Your task to perform on an android device: turn on javascript in the chrome app Image 0: 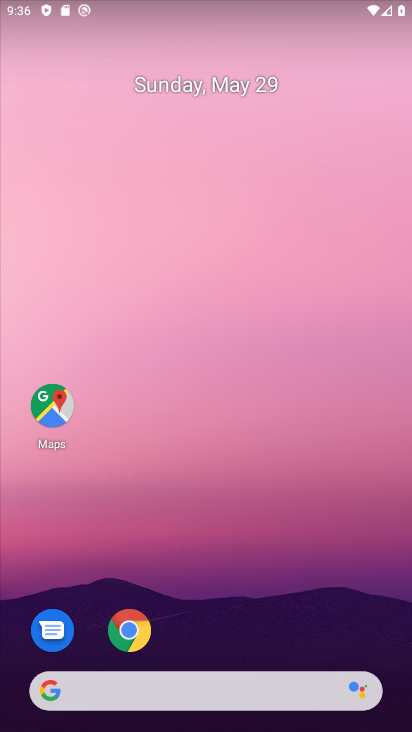
Step 0: click (139, 633)
Your task to perform on an android device: turn on javascript in the chrome app Image 1: 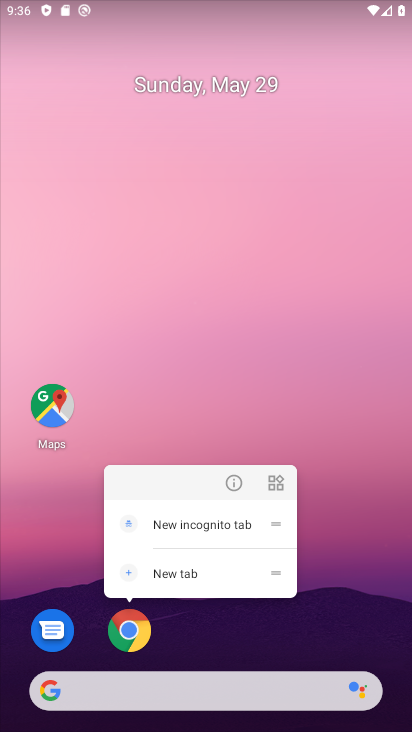
Step 1: click (131, 638)
Your task to perform on an android device: turn on javascript in the chrome app Image 2: 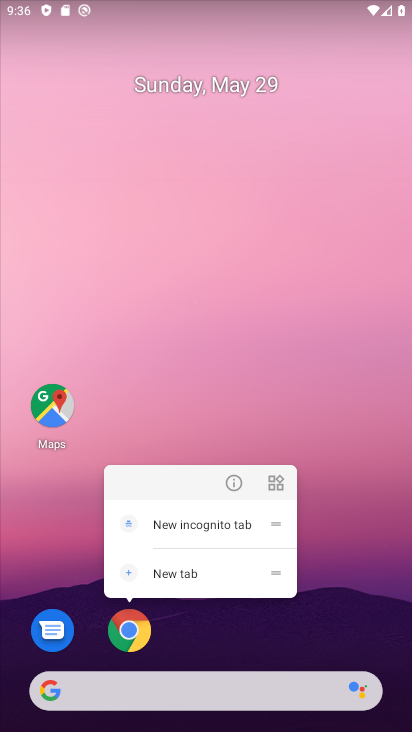
Step 2: click (137, 631)
Your task to perform on an android device: turn on javascript in the chrome app Image 3: 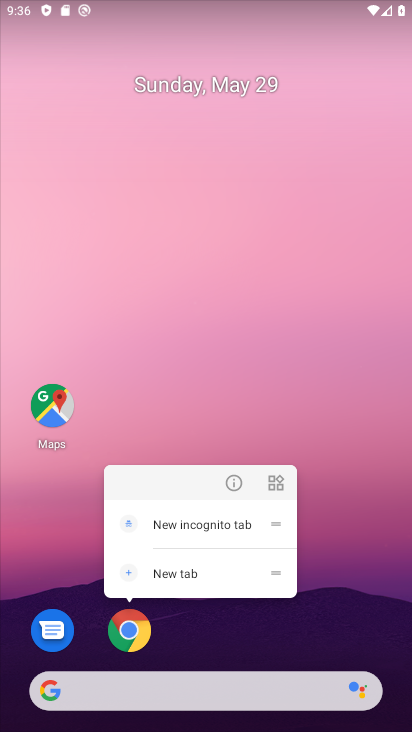
Step 3: click (127, 634)
Your task to perform on an android device: turn on javascript in the chrome app Image 4: 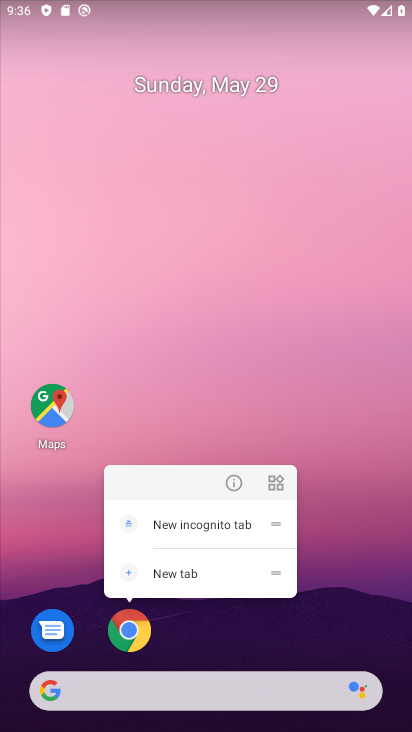
Step 4: click (123, 639)
Your task to perform on an android device: turn on javascript in the chrome app Image 5: 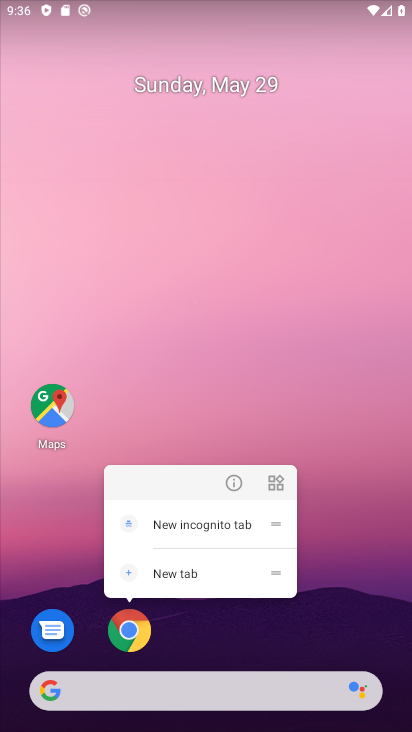
Step 5: click (128, 633)
Your task to perform on an android device: turn on javascript in the chrome app Image 6: 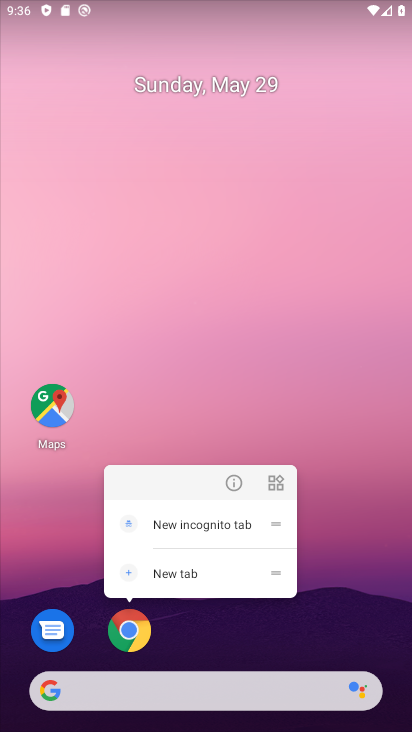
Step 6: click (120, 633)
Your task to perform on an android device: turn on javascript in the chrome app Image 7: 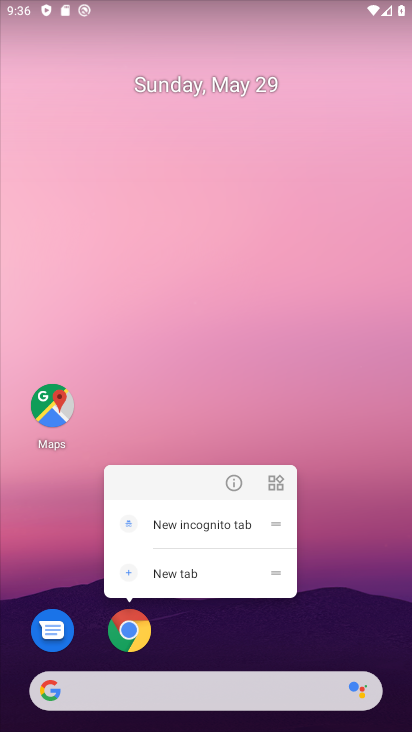
Step 7: click (126, 629)
Your task to perform on an android device: turn on javascript in the chrome app Image 8: 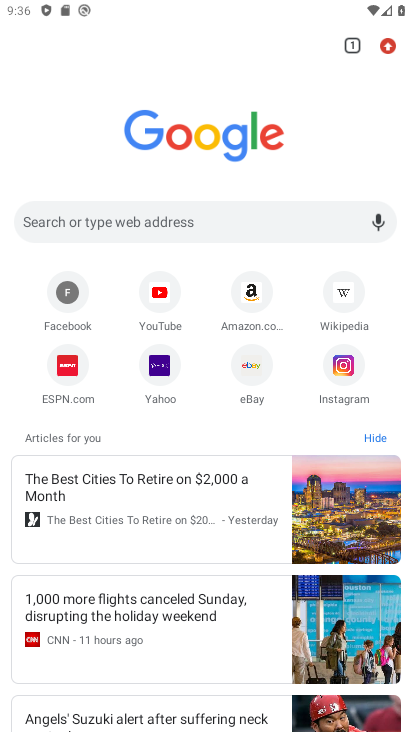
Step 8: drag from (389, 48) to (272, 429)
Your task to perform on an android device: turn on javascript in the chrome app Image 9: 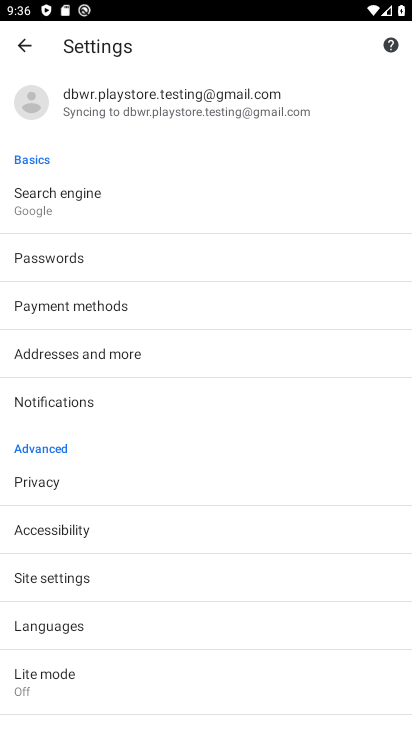
Step 9: click (139, 582)
Your task to perform on an android device: turn on javascript in the chrome app Image 10: 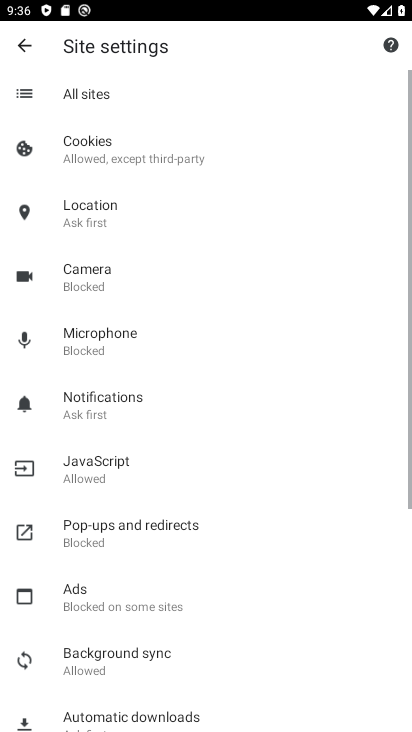
Step 10: click (213, 455)
Your task to perform on an android device: turn on javascript in the chrome app Image 11: 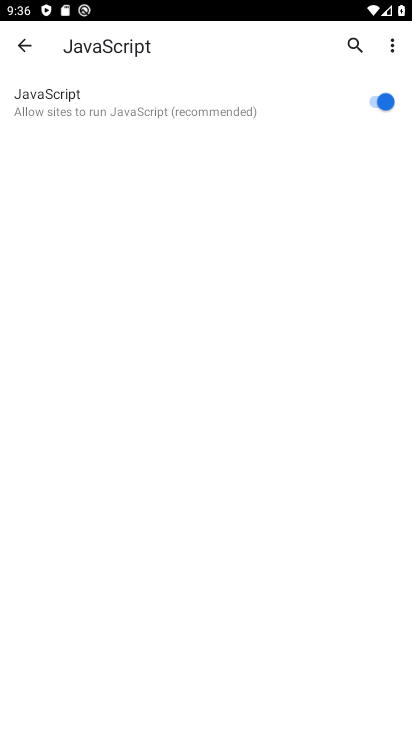
Step 11: task complete